Your task to perform on an android device: open a new tab in the chrome app Image 0: 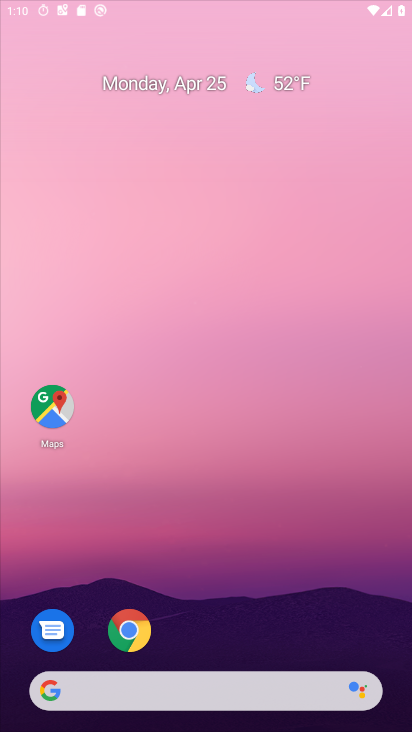
Step 0: click (278, 15)
Your task to perform on an android device: open a new tab in the chrome app Image 1: 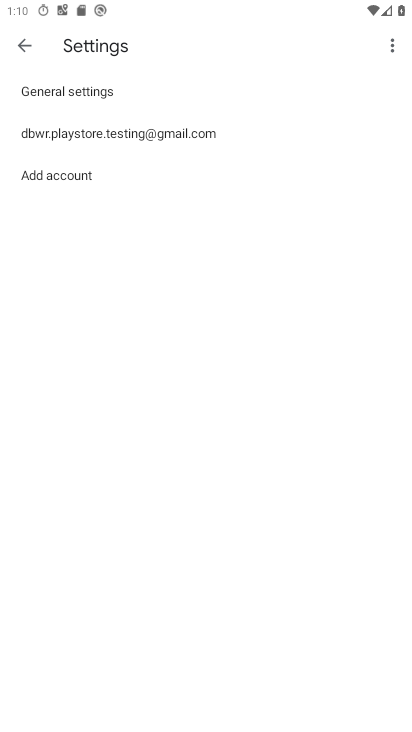
Step 1: click (101, 124)
Your task to perform on an android device: open a new tab in the chrome app Image 2: 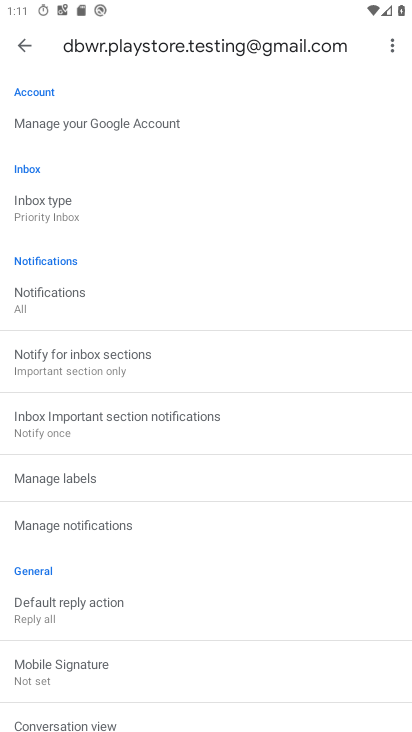
Step 2: click (24, 48)
Your task to perform on an android device: open a new tab in the chrome app Image 3: 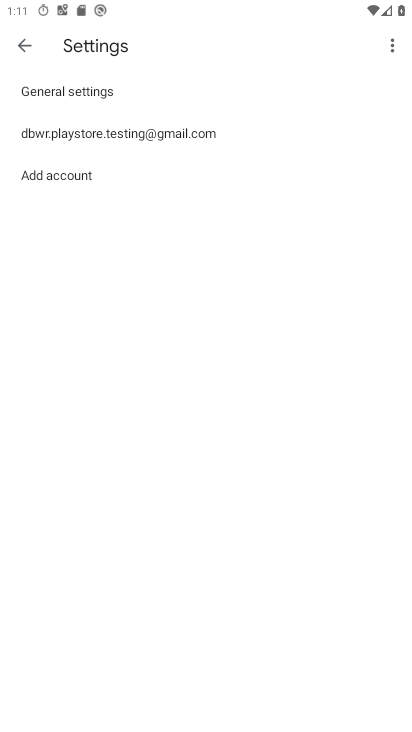
Step 3: press home button
Your task to perform on an android device: open a new tab in the chrome app Image 4: 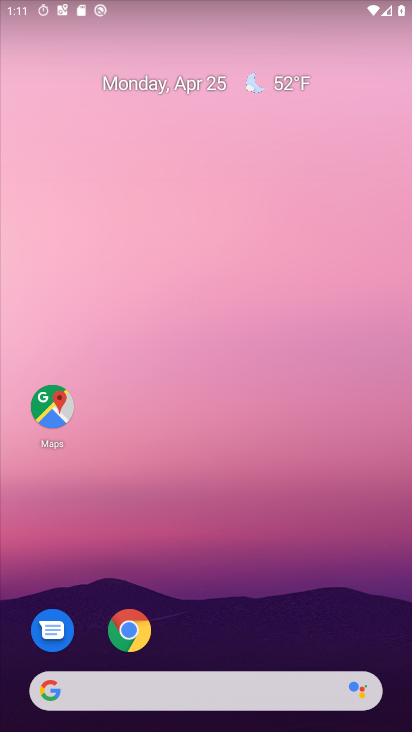
Step 4: click (138, 636)
Your task to perform on an android device: open a new tab in the chrome app Image 5: 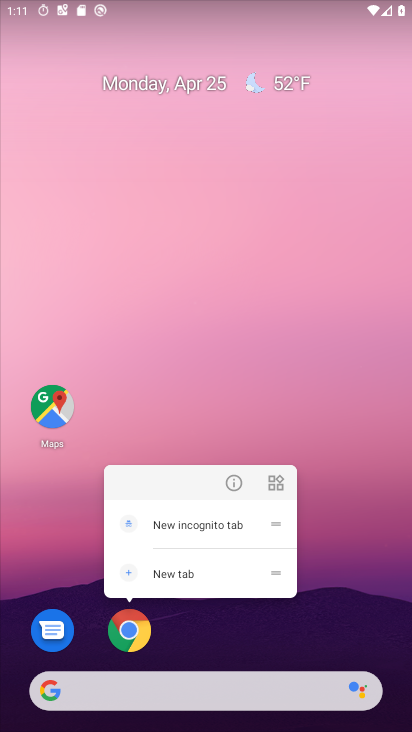
Step 5: click (235, 472)
Your task to perform on an android device: open a new tab in the chrome app Image 6: 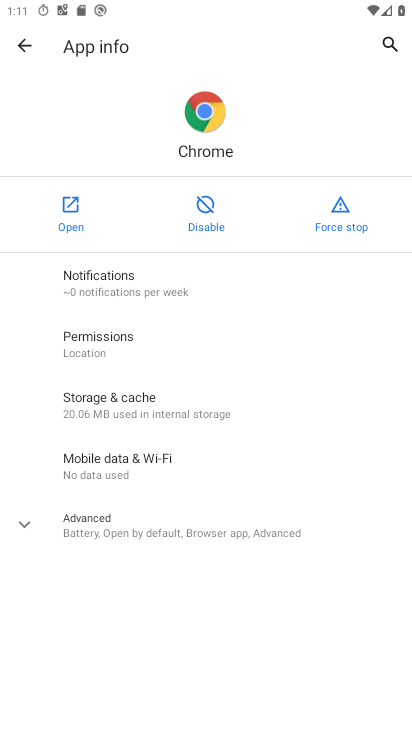
Step 6: click (68, 219)
Your task to perform on an android device: open a new tab in the chrome app Image 7: 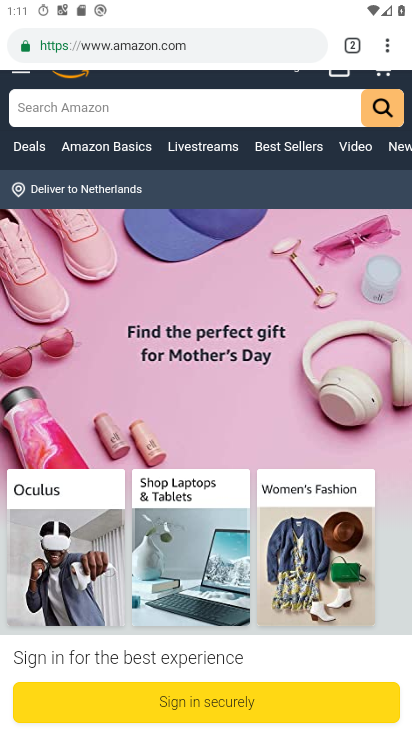
Step 7: drag from (226, 440) to (275, 206)
Your task to perform on an android device: open a new tab in the chrome app Image 8: 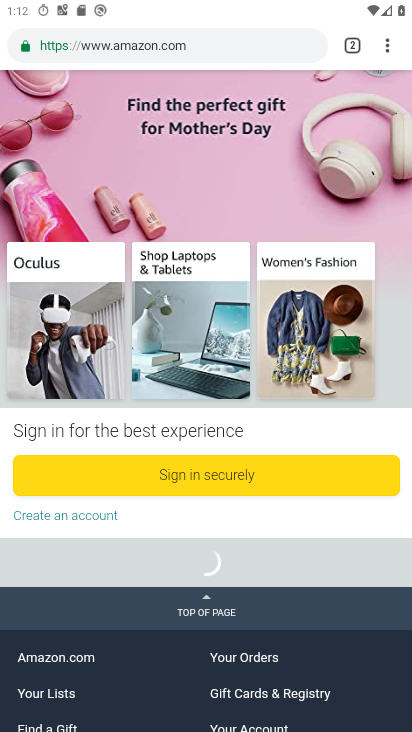
Step 8: drag from (263, 451) to (309, 724)
Your task to perform on an android device: open a new tab in the chrome app Image 9: 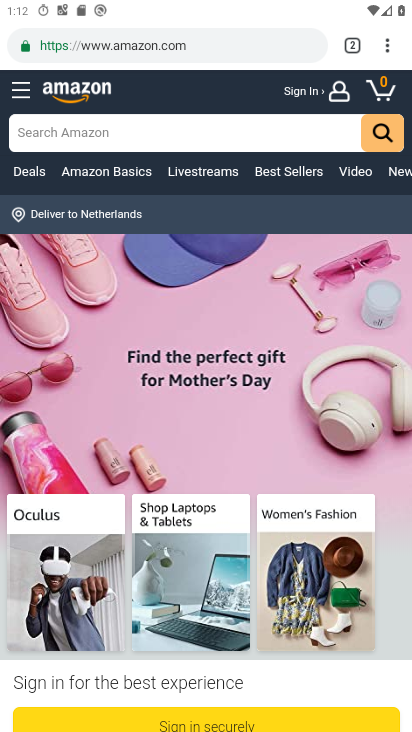
Step 9: click (355, 45)
Your task to perform on an android device: open a new tab in the chrome app Image 10: 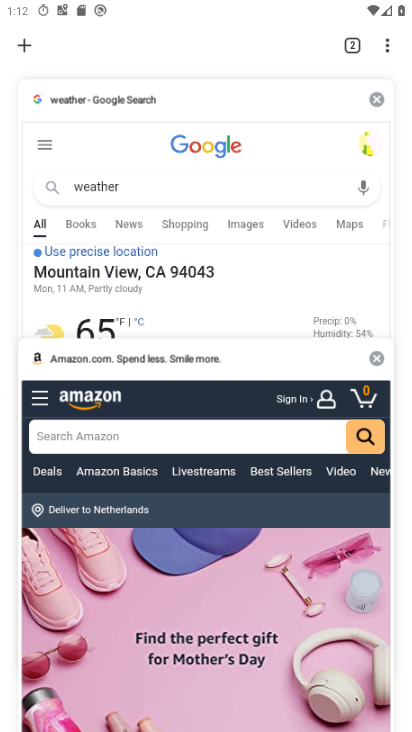
Step 10: click (37, 37)
Your task to perform on an android device: open a new tab in the chrome app Image 11: 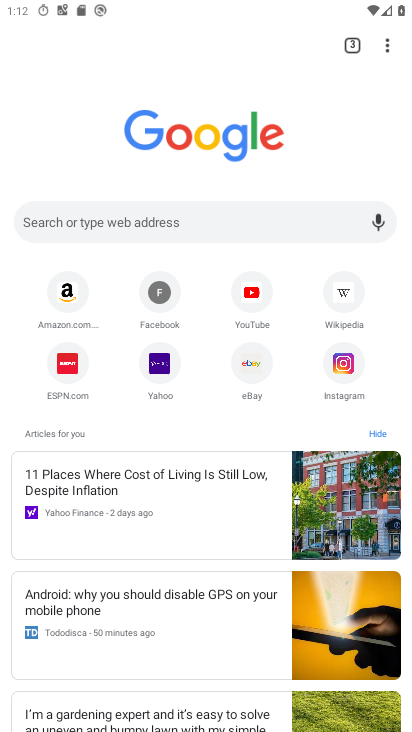
Step 11: task complete